Your task to perform on an android device: Set an alarm for 7pm Image 0: 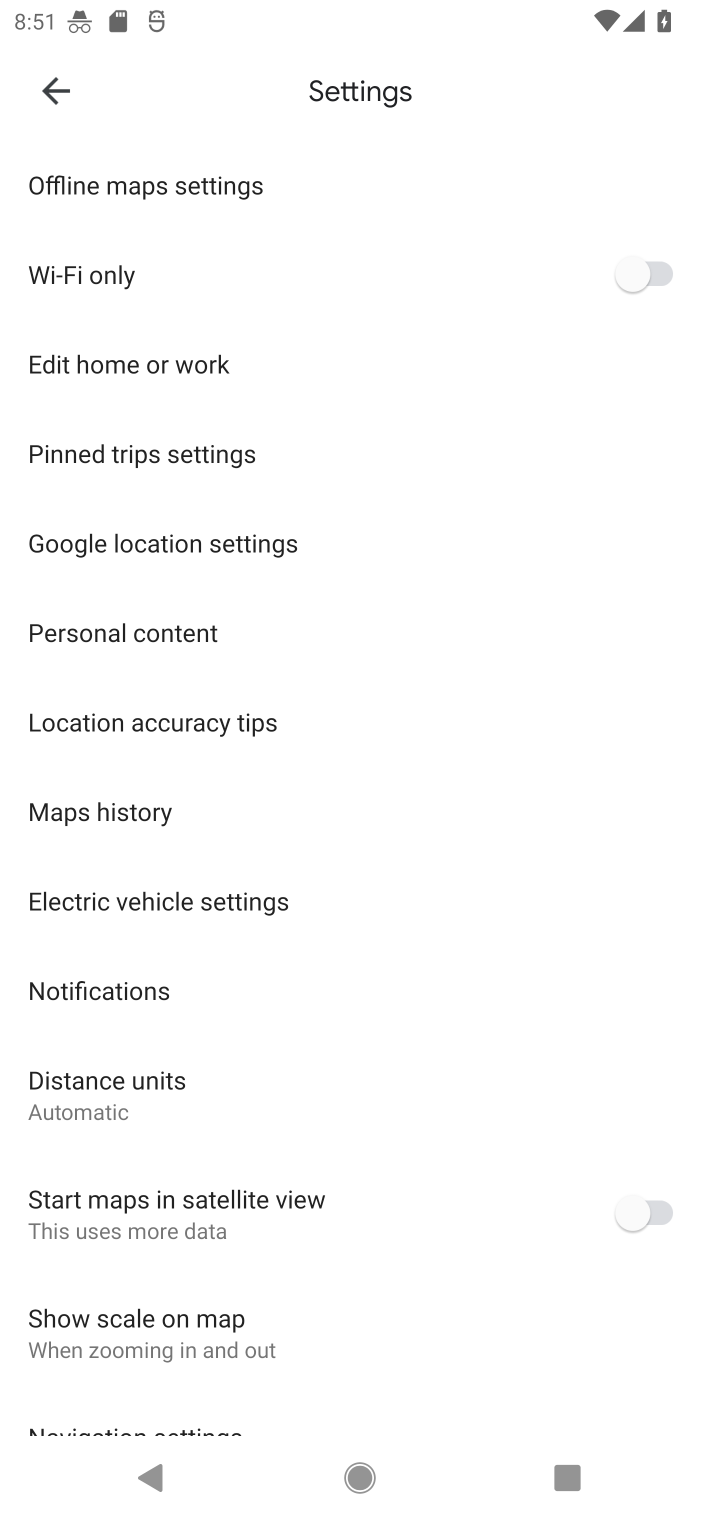
Step 0: press home button
Your task to perform on an android device: Set an alarm for 7pm Image 1: 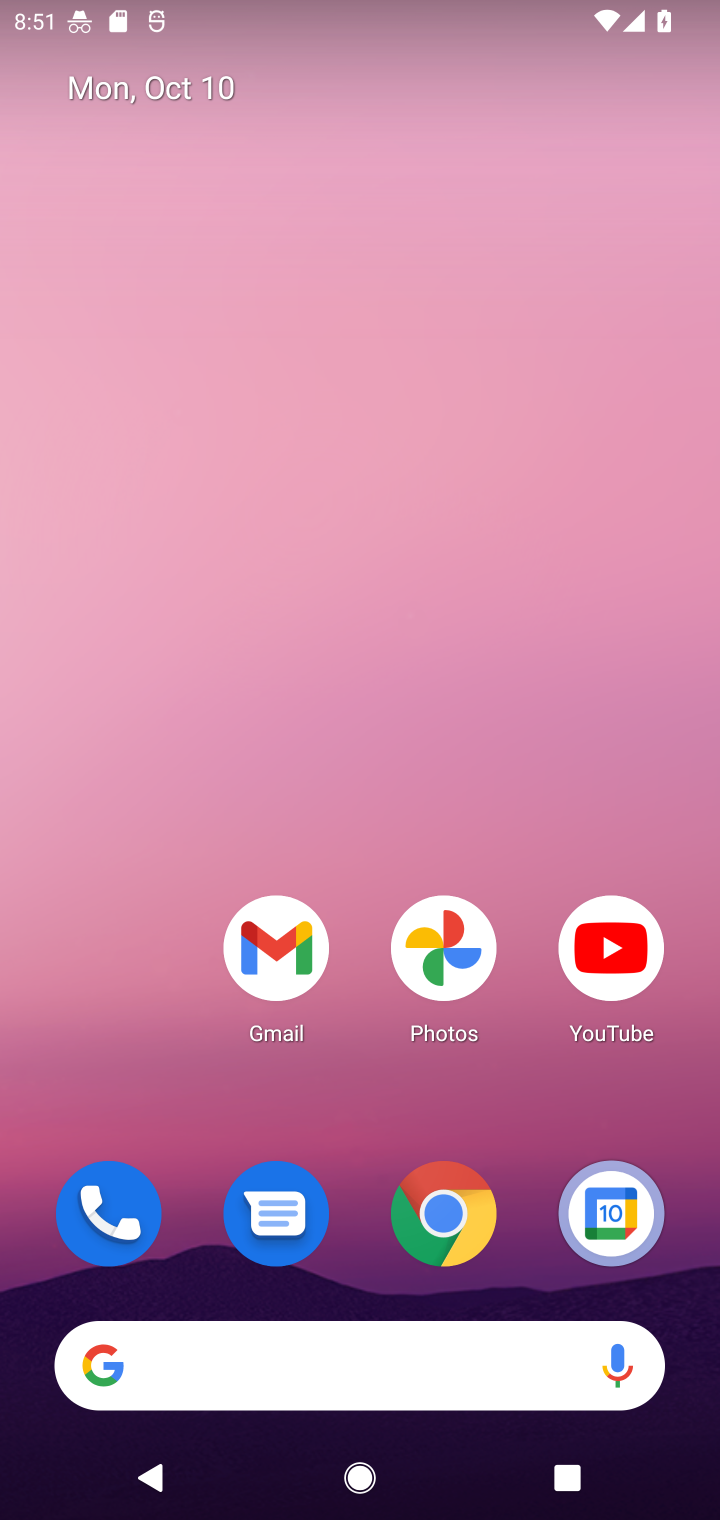
Step 1: drag from (55, 1093) to (245, 8)
Your task to perform on an android device: Set an alarm for 7pm Image 2: 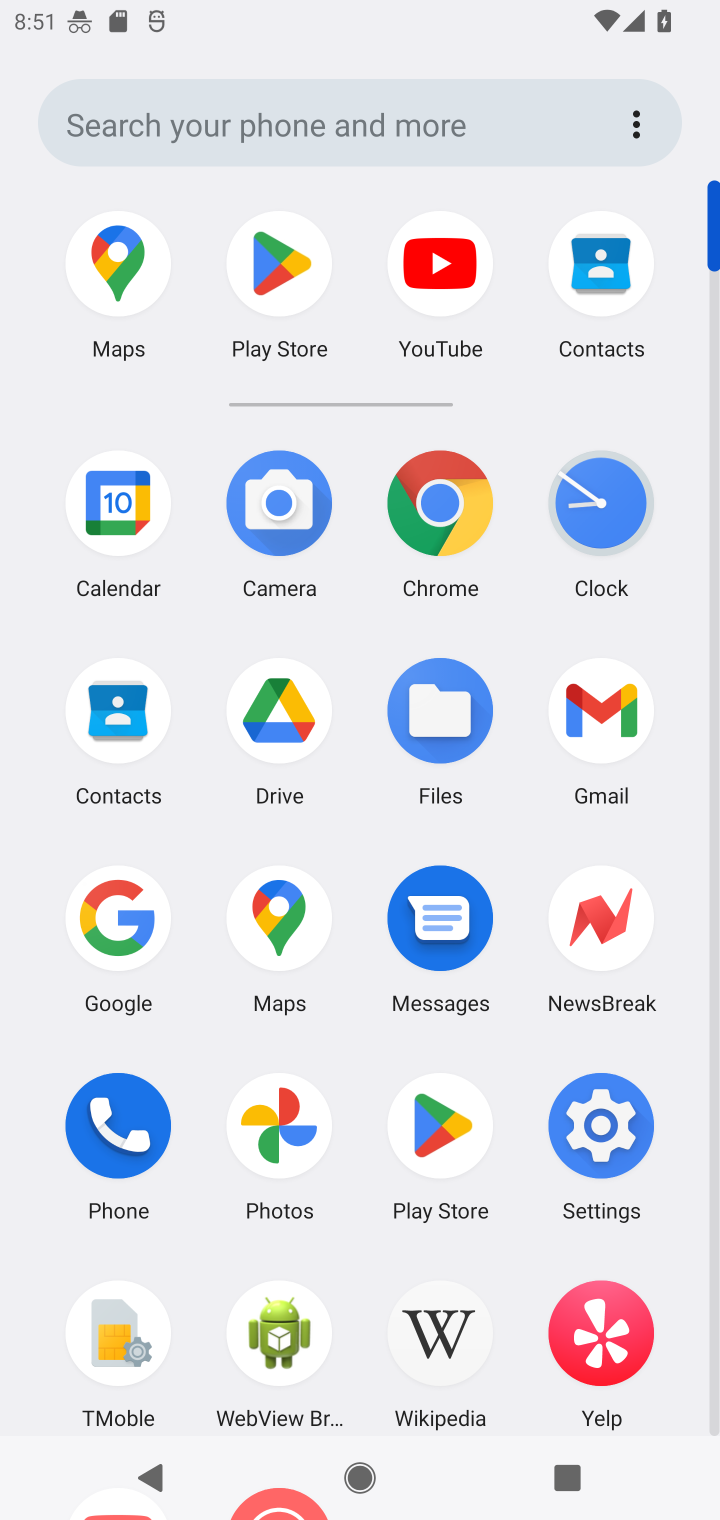
Step 2: click (636, 496)
Your task to perform on an android device: Set an alarm for 7pm Image 3: 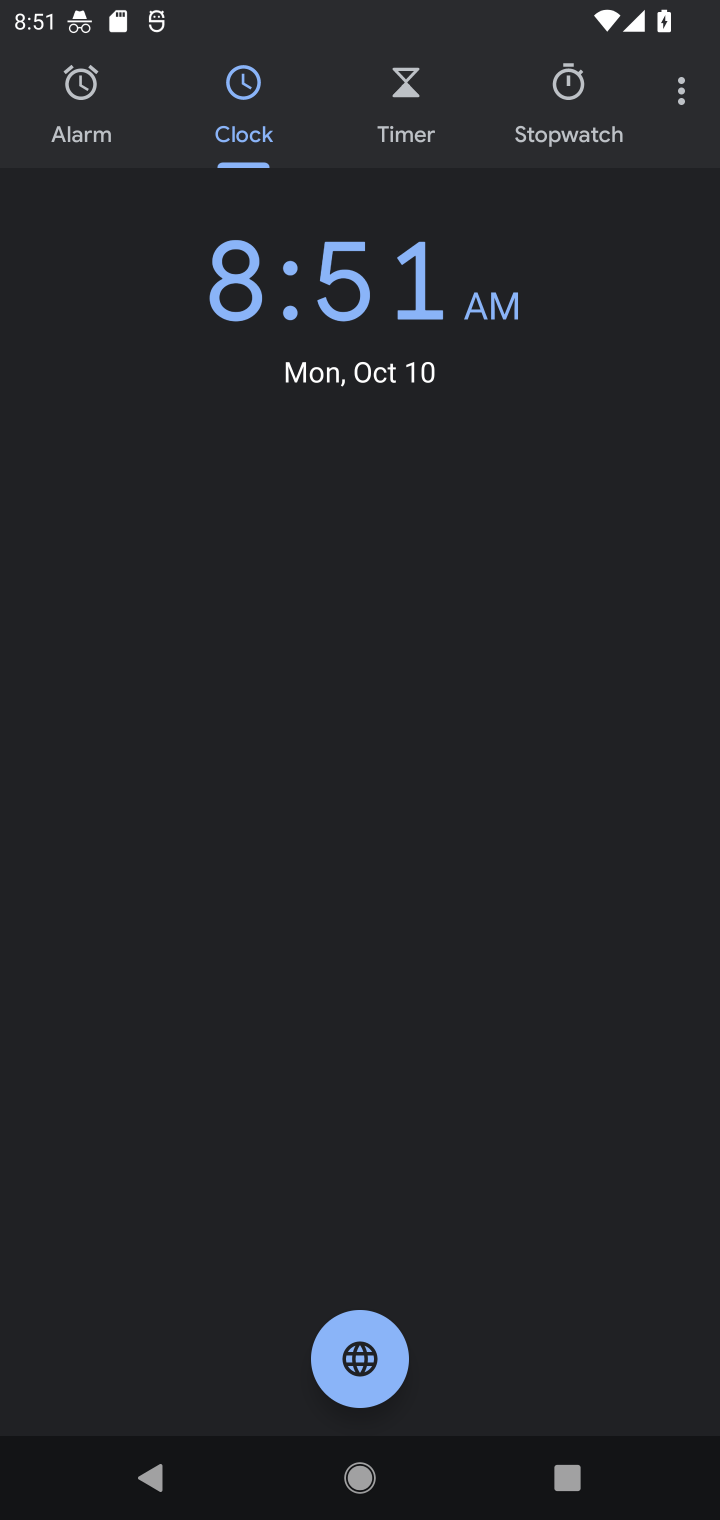
Step 3: click (89, 101)
Your task to perform on an android device: Set an alarm for 7pm Image 4: 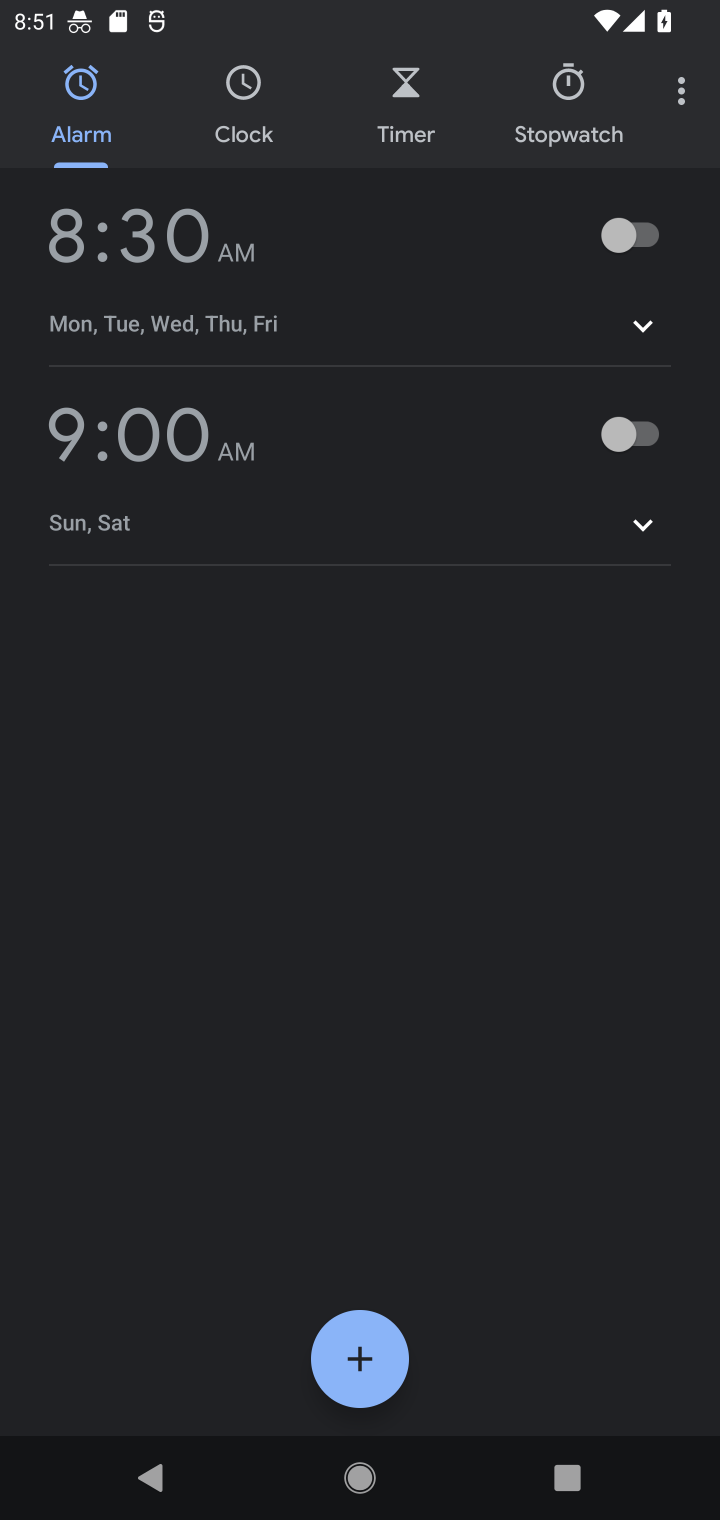
Step 4: click (345, 1318)
Your task to perform on an android device: Set an alarm for 7pm Image 5: 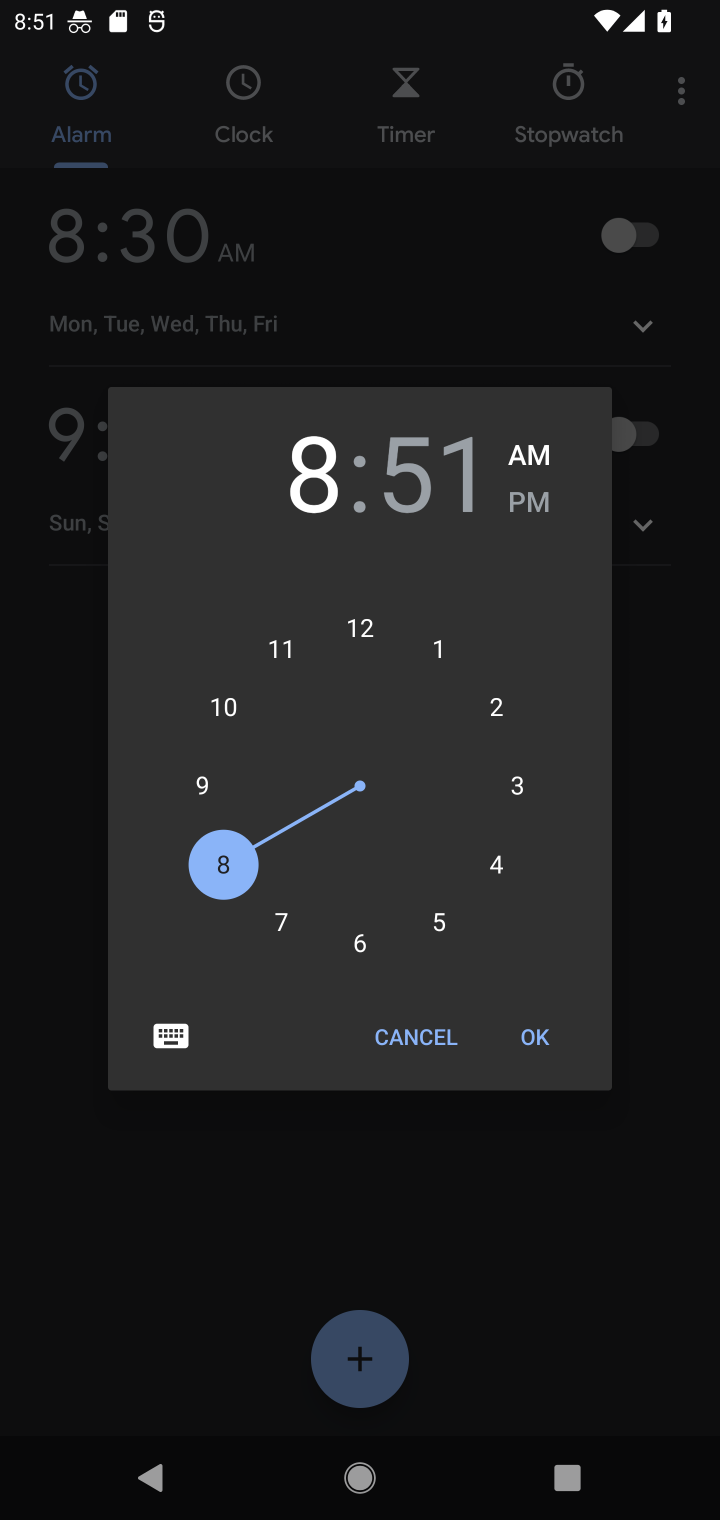
Step 5: click (286, 920)
Your task to perform on an android device: Set an alarm for 7pm Image 6: 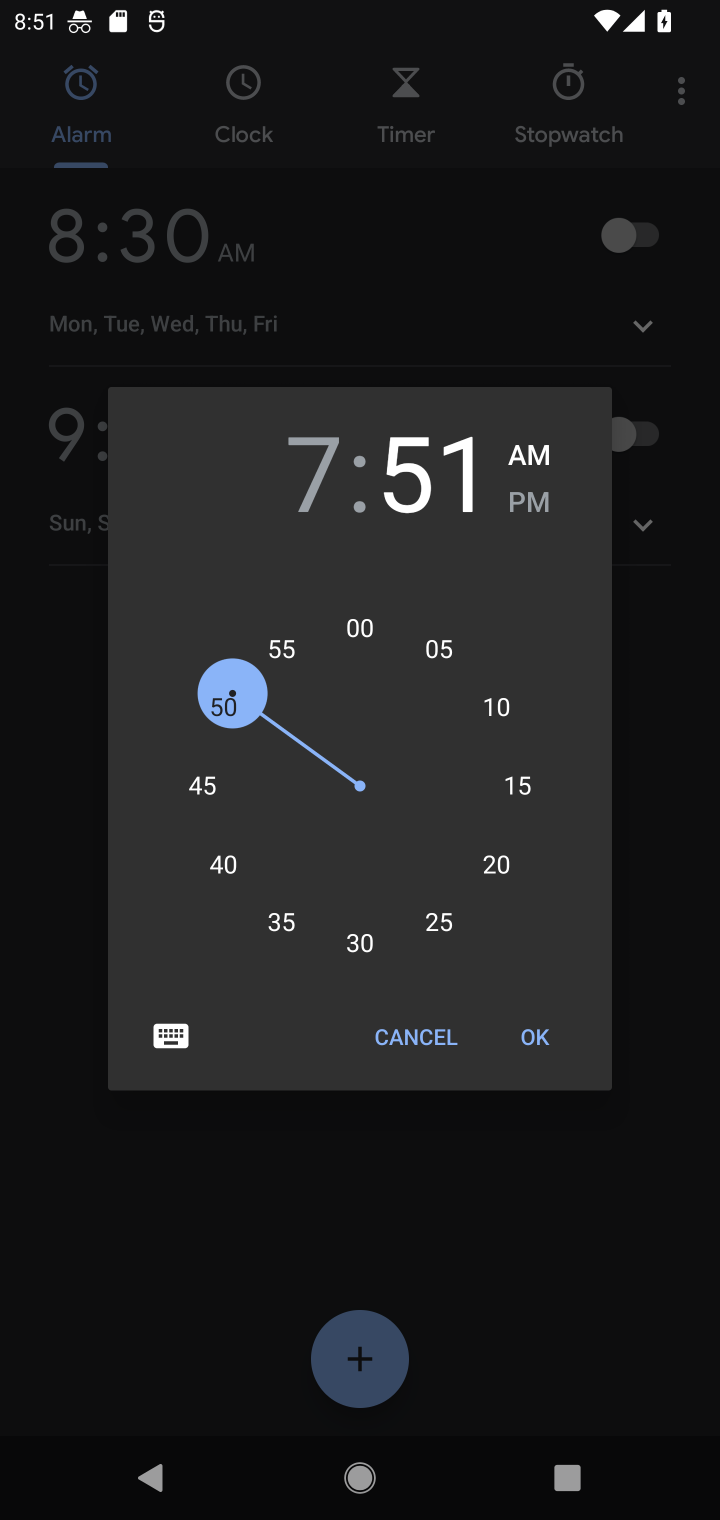
Step 6: click (365, 615)
Your task to perform on an android device: Set an alarm for 7pm Image 7: 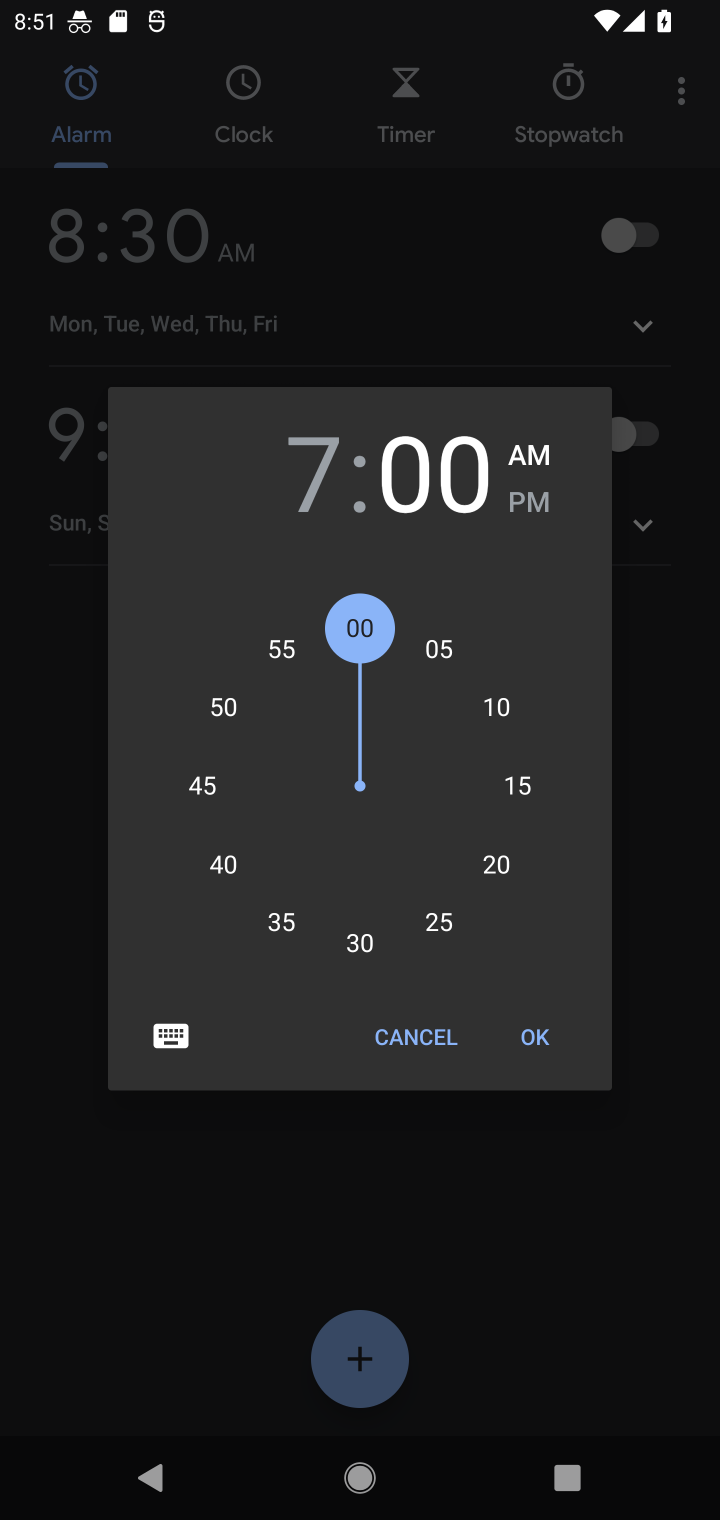
Step 7: click (512, 516)
Your task to perform on an android device: Set an alarm for 7pm Image 8: 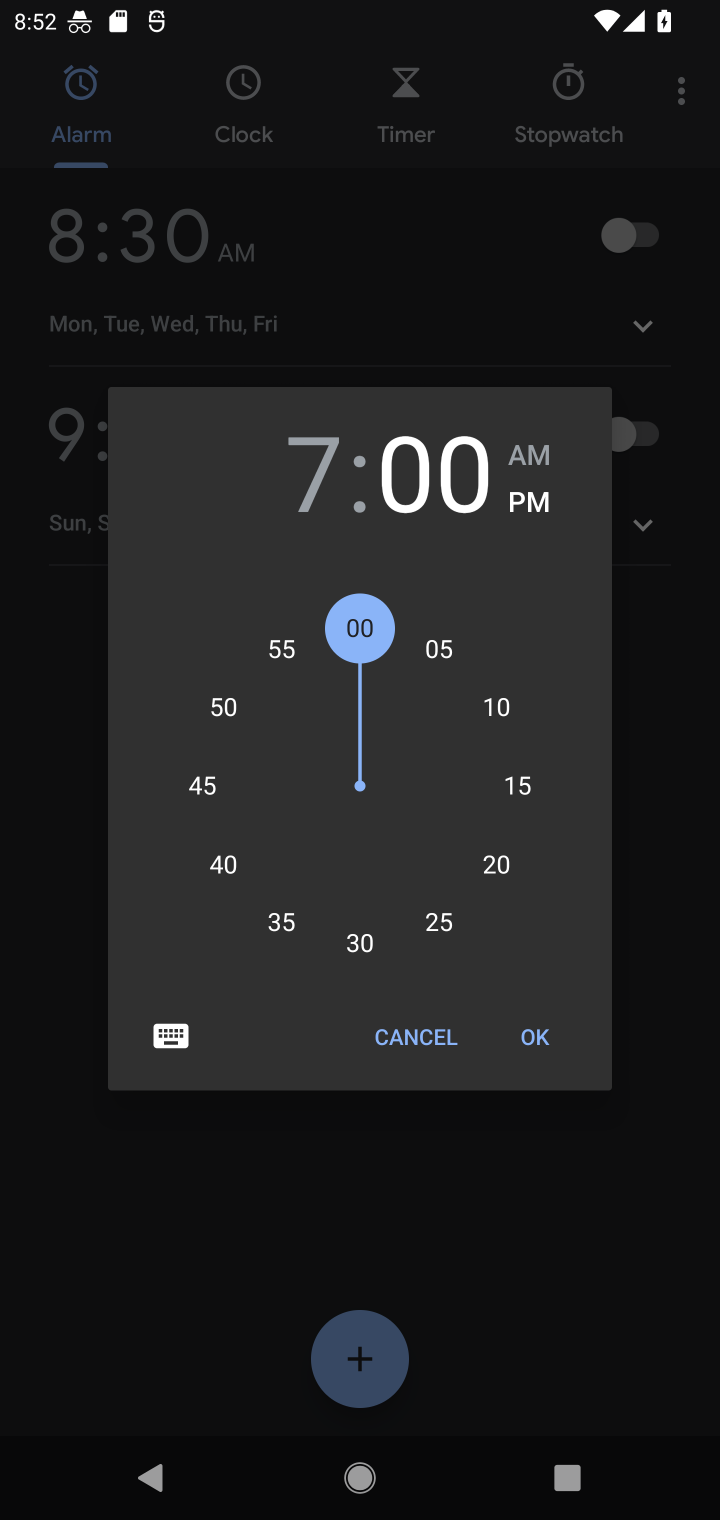
Step 8: task complete